Your task to perform on an android device: Open settings on Google Maps Image 0: 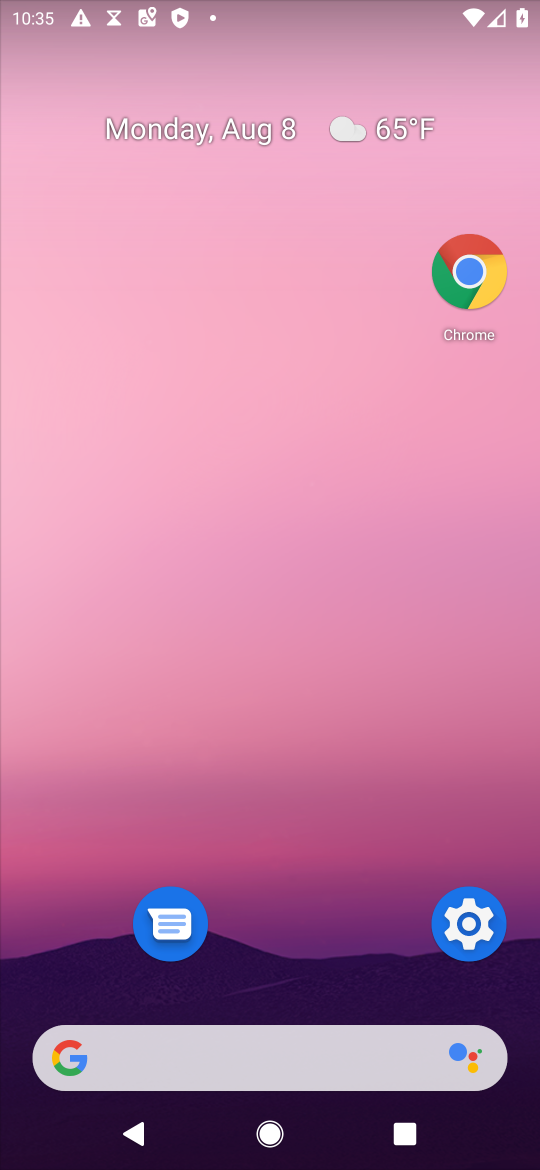
Step 0: press home button
Your task to perform on an android device: Open settings on Google Maps Image 1: 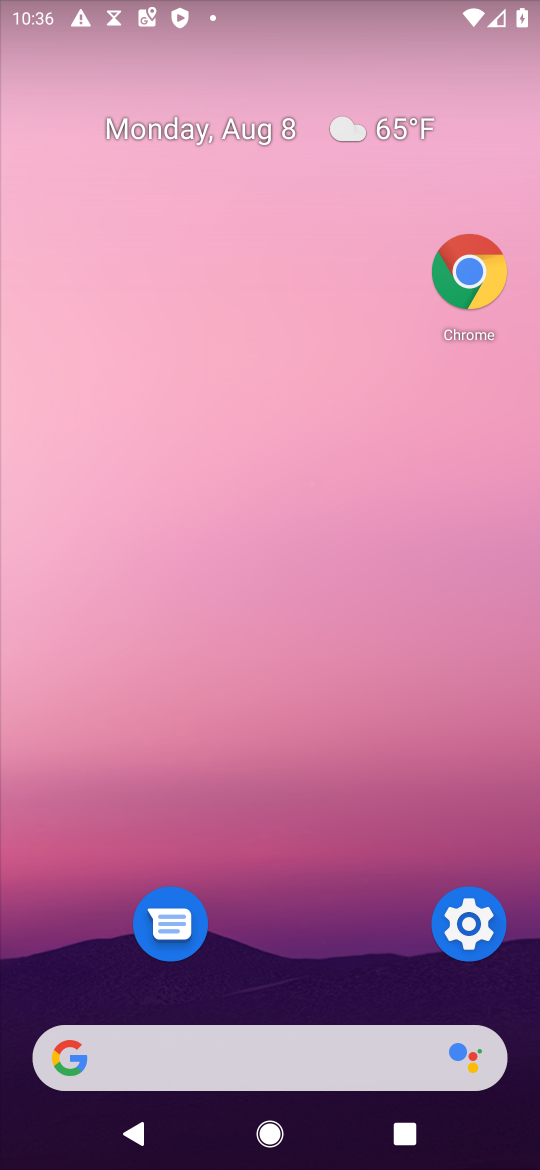
Step 1: drag from (291, 589) to (502, 521)
Your task to perform on an android device: Open settings on Google Maps Image 2: 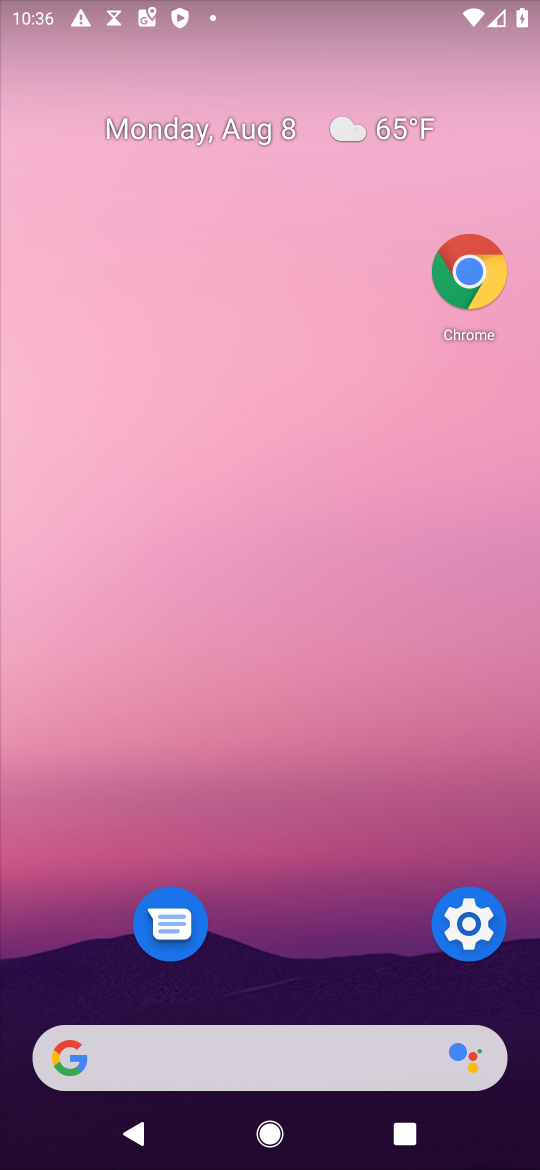
Step 2: drag from (333, 987) to (225, 124)
Your task to perform on an android device: Open settings on Google Maps Image 3: 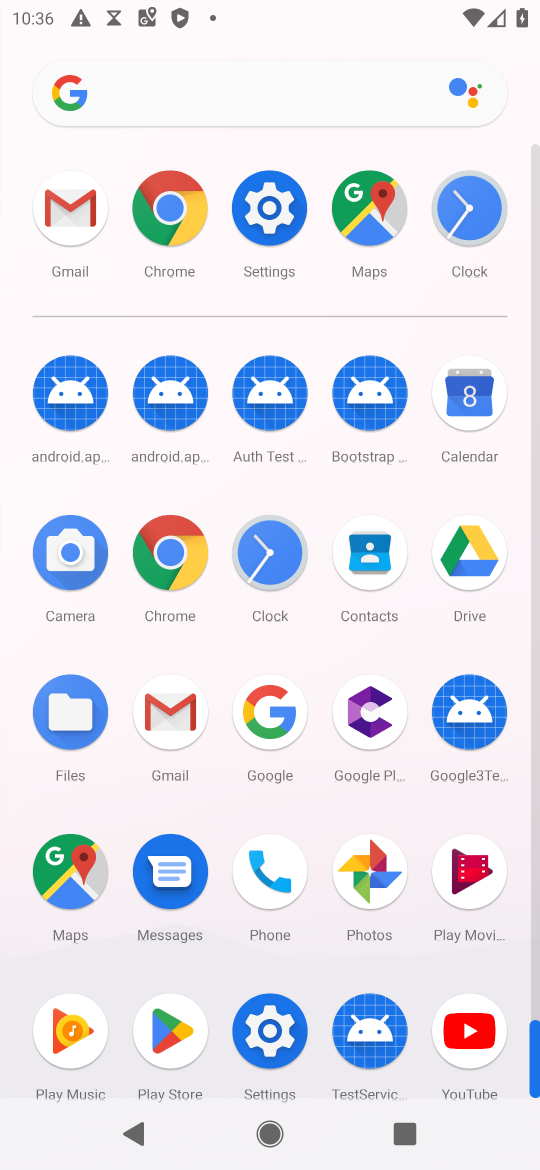
Step 3: click (377, 220)
Your task to perform on an android device: Open settings on Google Maps Image 4: 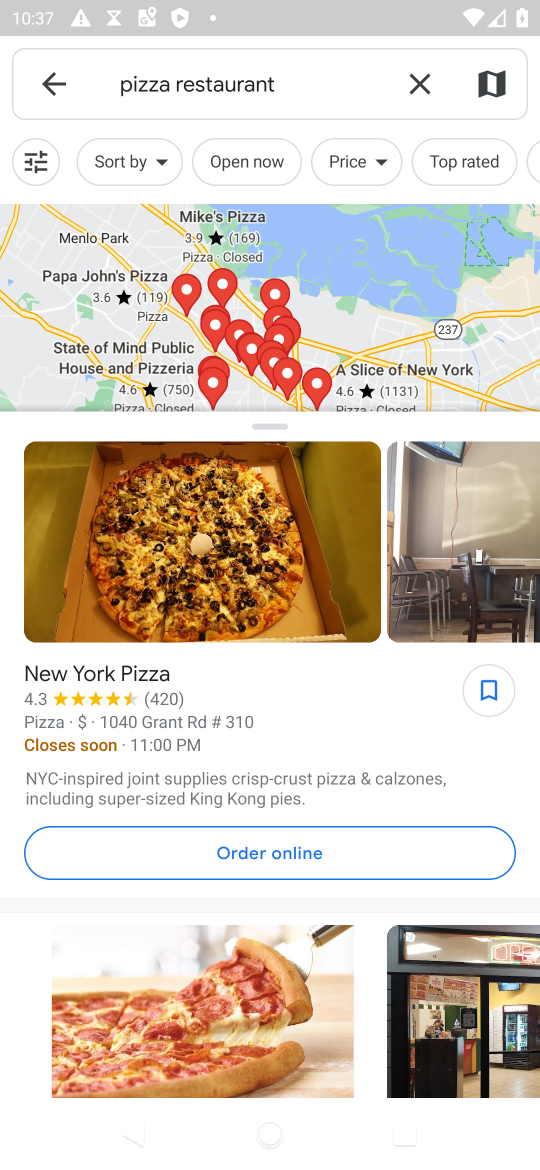
Step 4: click (421, 88)
Your task to perform on an android device: Open settings on Google Maps Image 5: 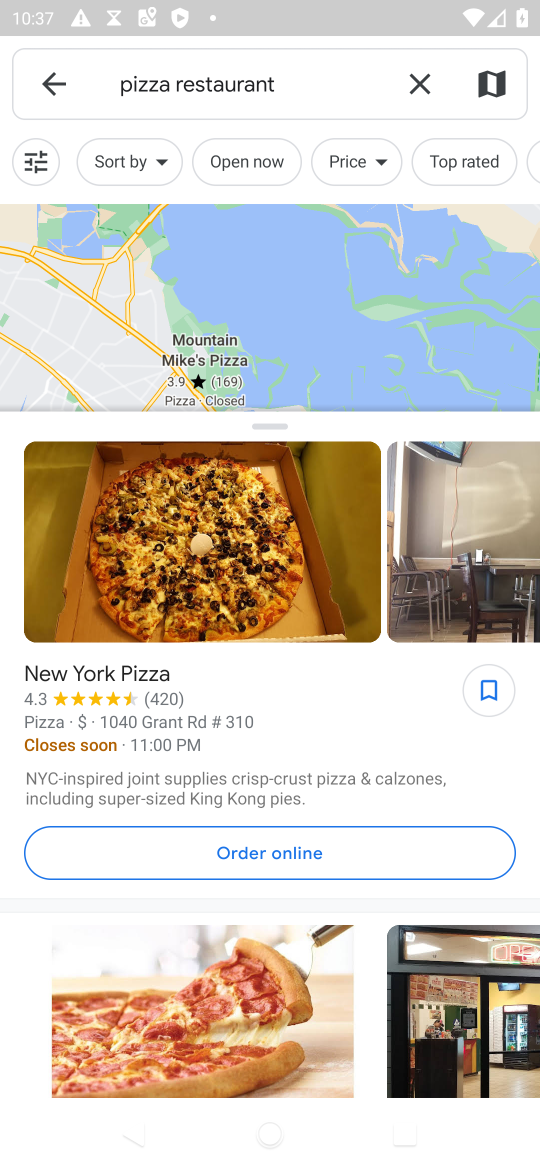
Step 5: click (43, 75)
Your task to perform on an android device: Open settings on Google Maps Image 6: 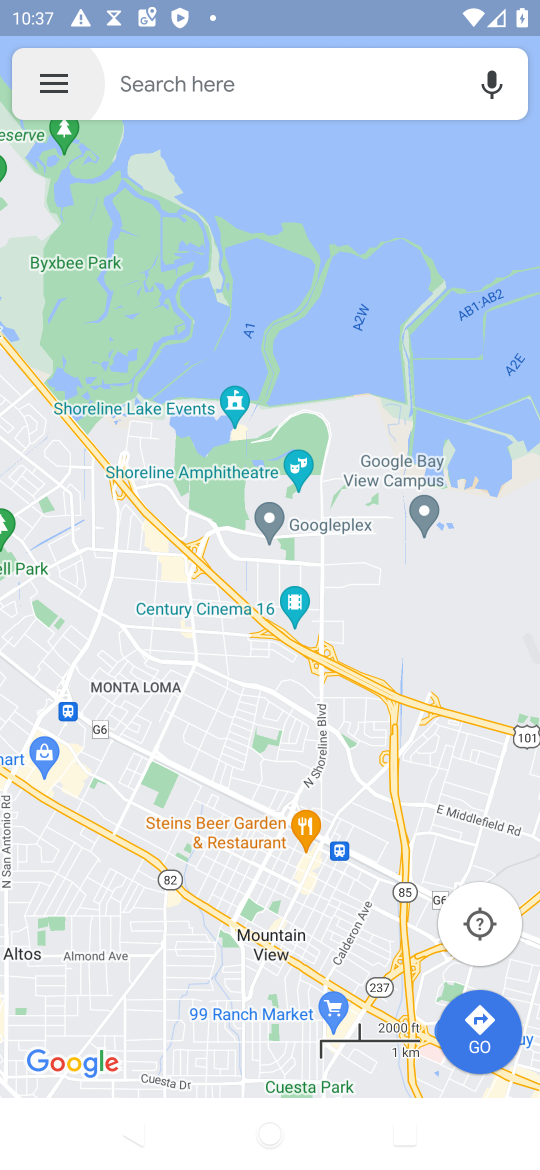
Step 6: click (43, 75)
Your task to perform on an android device: Open settings on Google Maps Image 7: 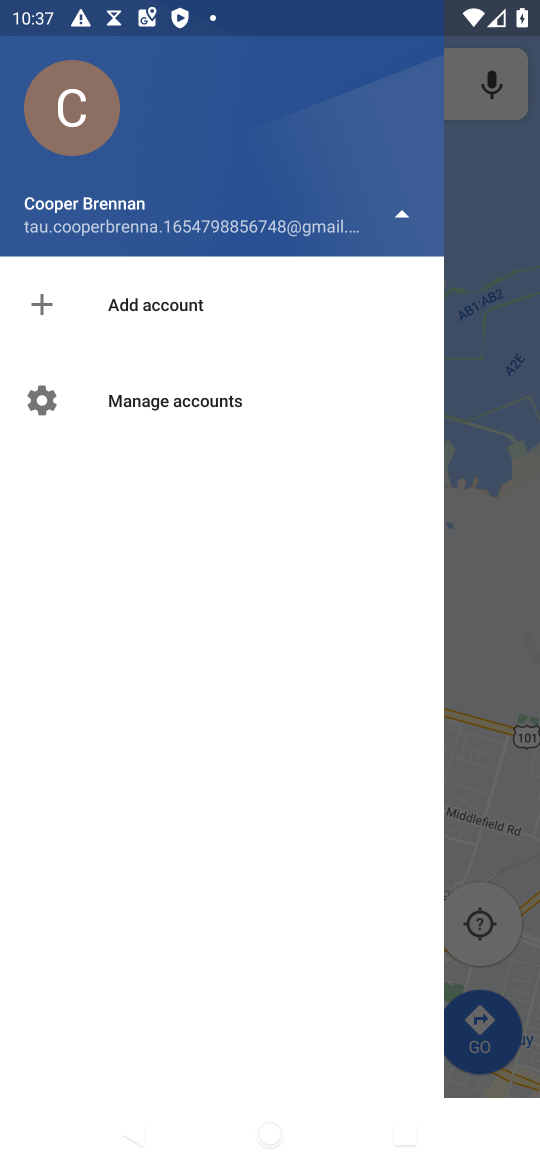
Step 7: click (40, 404)
Your task to perform on an android device: Open settings on Google Maps Image 8: 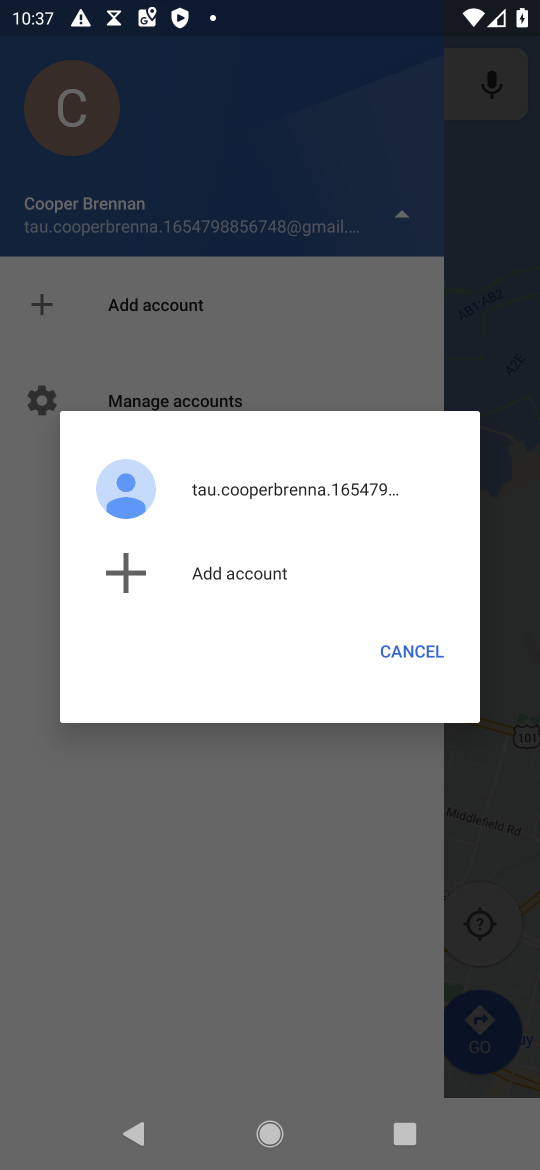
Step 8: click (424, 657)
Your task to perform on an android device: Open settings on Google Maps Image 9: 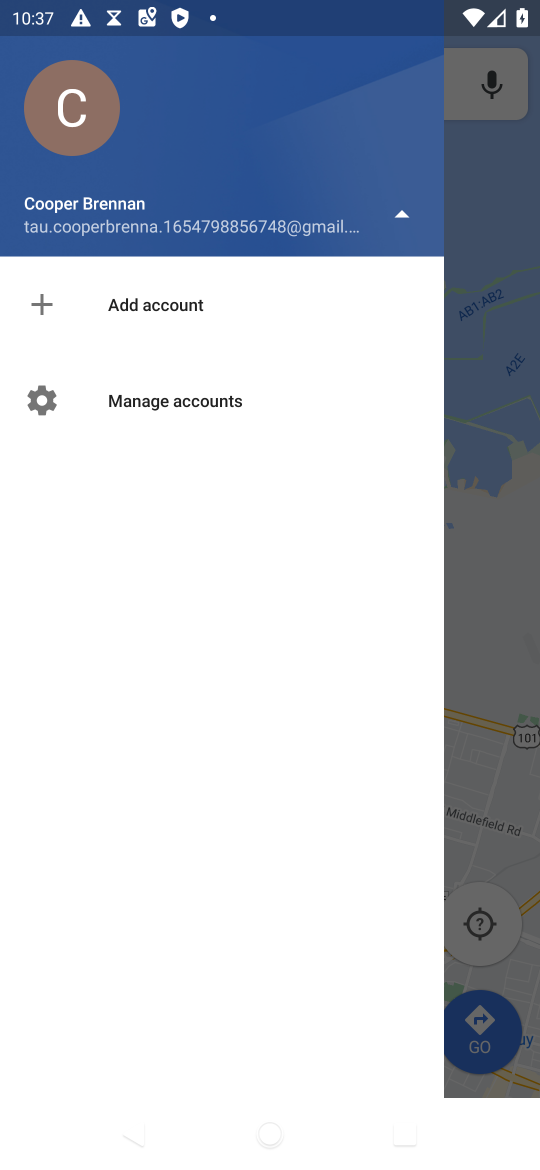
Step 9: task complete